Your task to perform on an android device: Go to privacy settings Image 0: 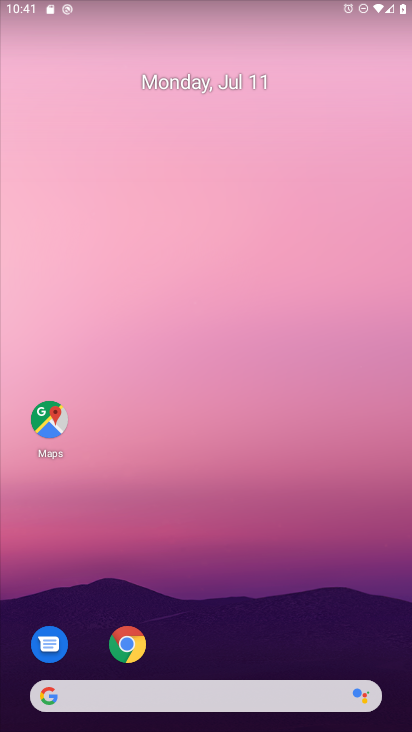
Step 0: drag from (202, 675) to (211, 367)
Your task to perform on an android device: Go to privacy settings Image 1: 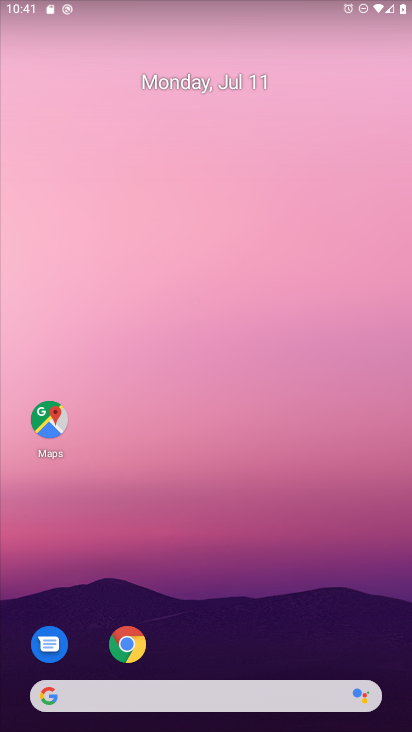
Step 1: drag from (181, 665) to (255, 72)
Your task to perform on an android device: Go to privacy settings Image 2: 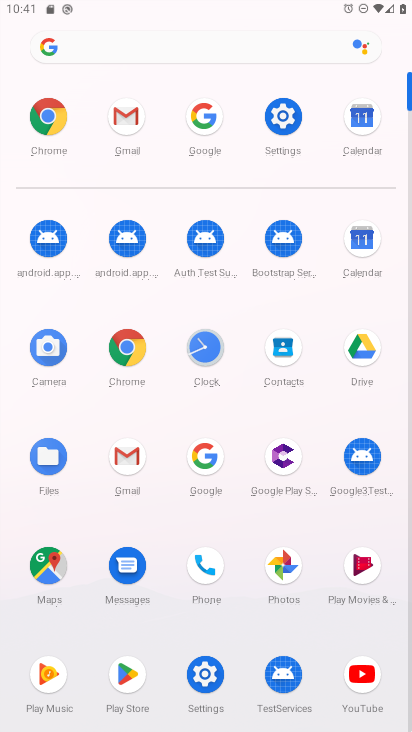
Step 2: click (285, 126)
Your task to perform on an android device: Go to privacy settings Image 3: 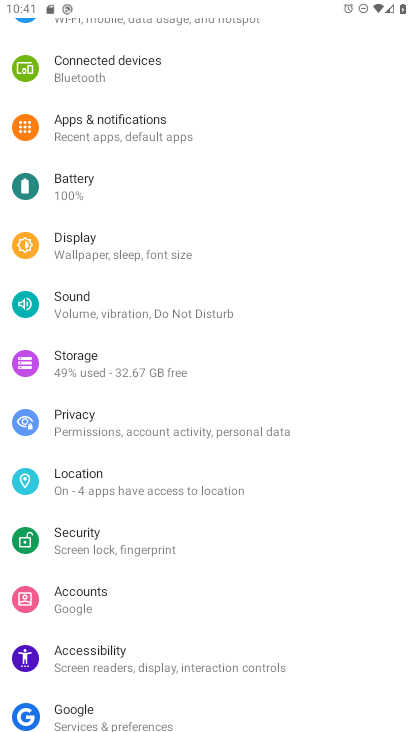
Step 3: click (91, 430)
Your task to perform on an android device: Go to privacy settings Image 4: 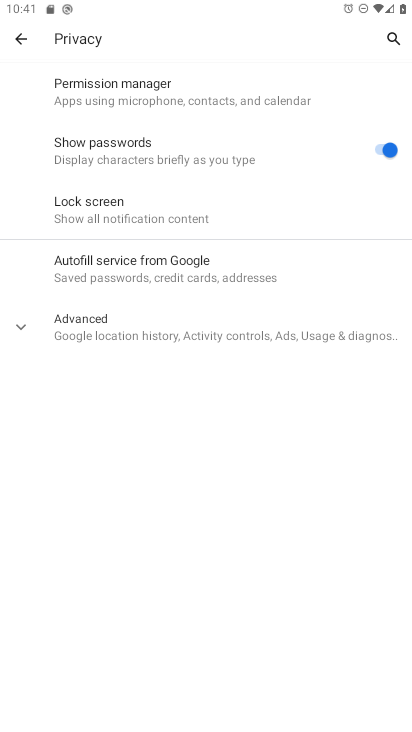
Step 4: click (91, 329)
Your task to perform on an android device: Go to privacy settings Image 5: 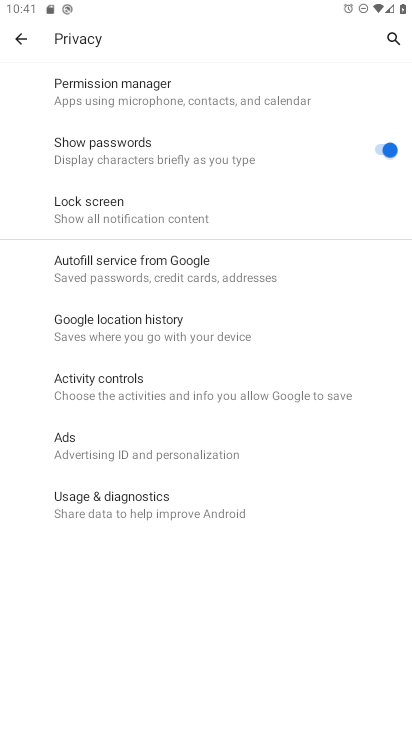
Step 5: task complete